Your task to perform on an android device: Open network settings Image 0: 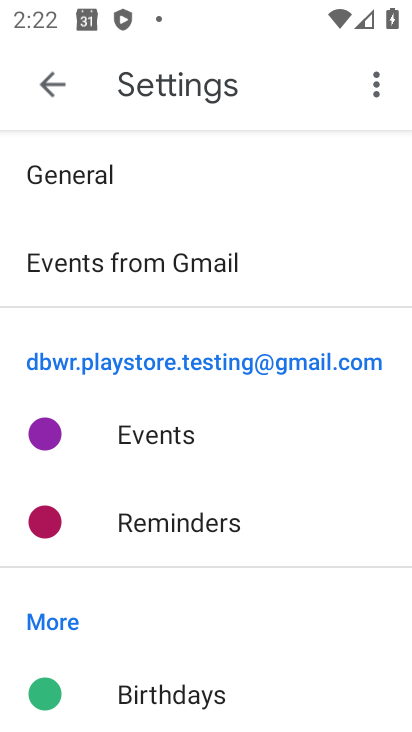
Step 0: press home button
Your task to perform on an android device: Open network settings Image 1: 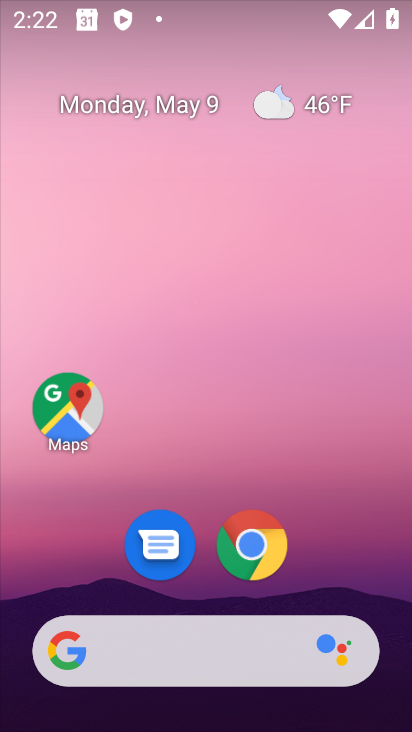
Step 1: drag from (190, 591) to (230, 196)
Your task to perform on an android device: Open network settings Image 2: 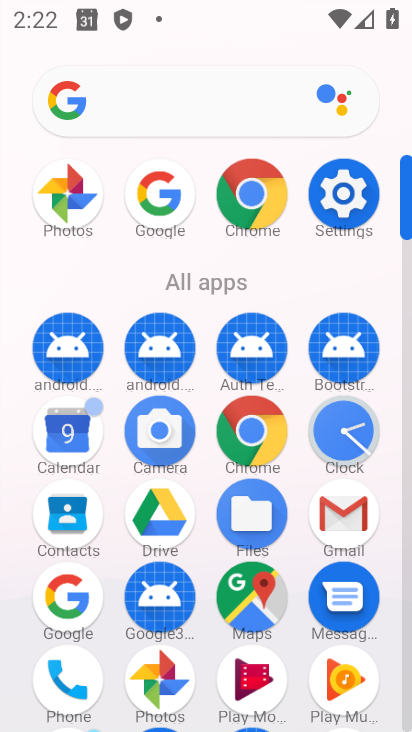
Step 2: click (306, 197)
Your task to perform on an android device: Open network settings Image 3: 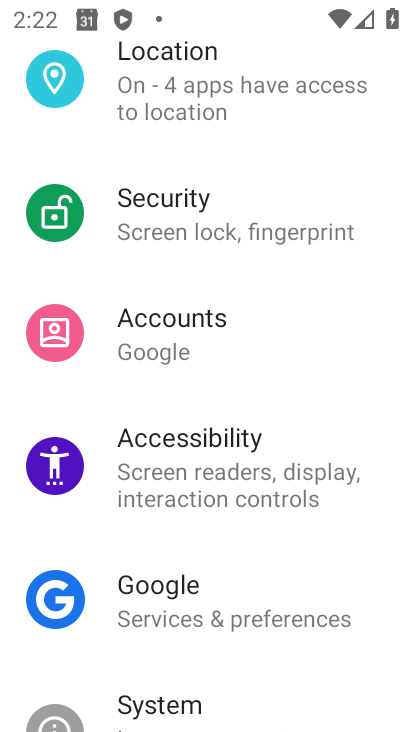
Step 3: drag from (231, 245) to (241, 628)
Your task to perform on an android device: Open network settings Image 4: 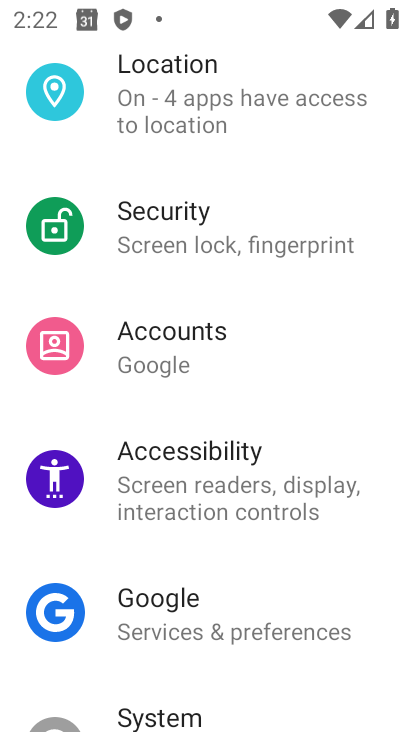
Step 4: drag from (247, 291) to (236, 554)
Your task to perform on an android device: Open network settings Image 5: 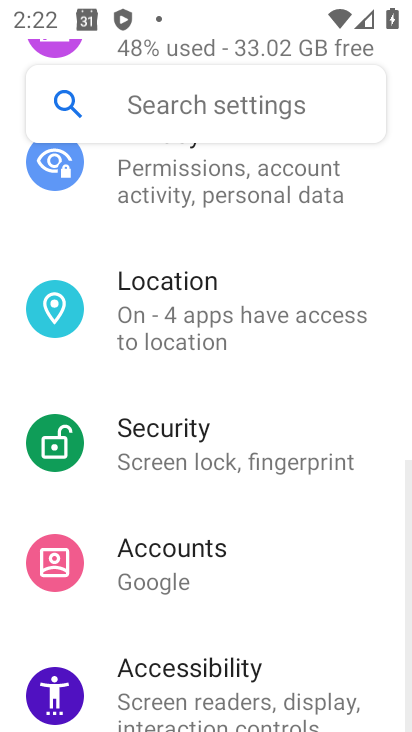
Step 5: drag from (253, 233) to (247, 529)
Your task to perform on an android device: Open network settings Image 6: 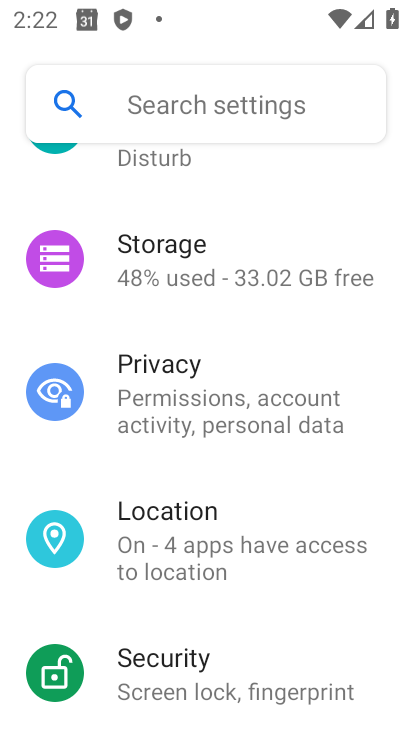
Step 6: drag from (251, 233) to (243, 496)
Your task to perform on an android device: Open network settings Image 7: 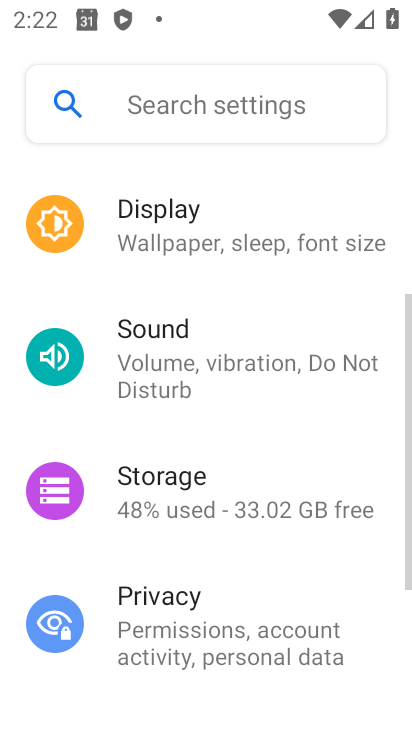
Step 7: drag from (237, 280) to (229, 543)
Your task to perform on an android device: Open network settings Image 8: 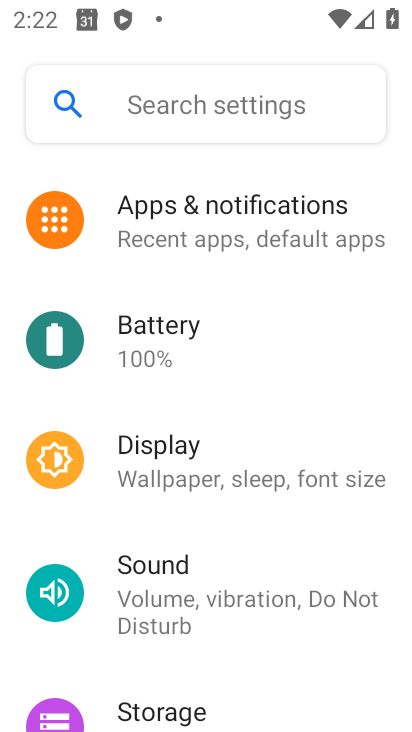
Step 8: drag from (210, 250) to (187, 615)
Your task to perform on an android device: Open network settings Image 9: 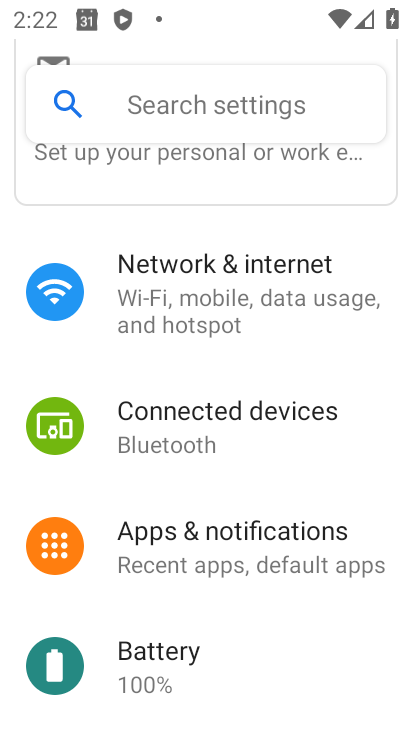
Step 9: click (205, 306)
Your task to perform on an android device: Open network settings Image 10: 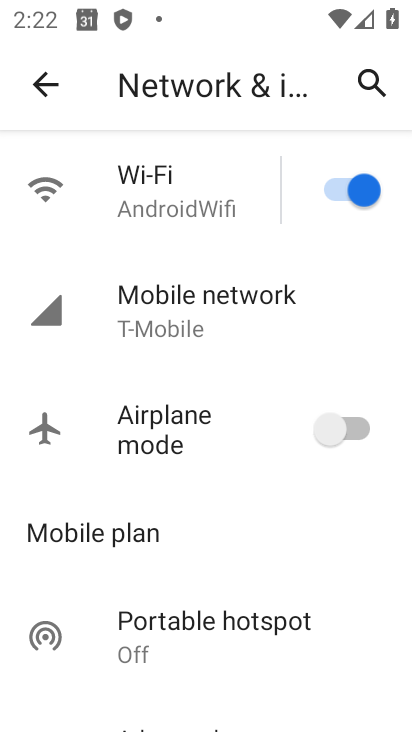
Step 10: drag from (216, 608) to (242, 427)
Your task to perform on an android device: Open network settings Image 11: 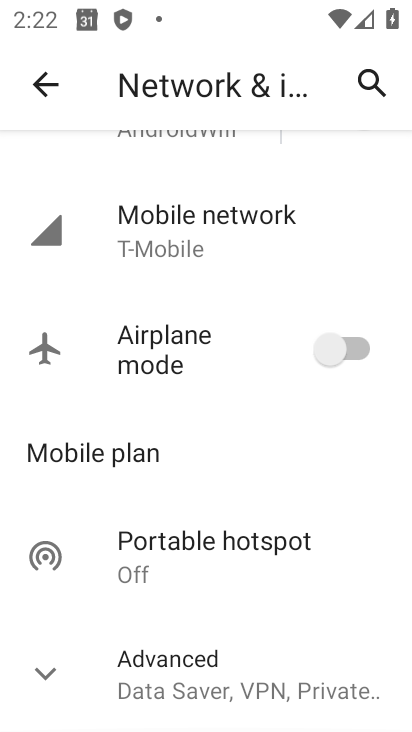
Step 11: click (246, 261)
Your task to perform on an android device: Open network settings Image 12: 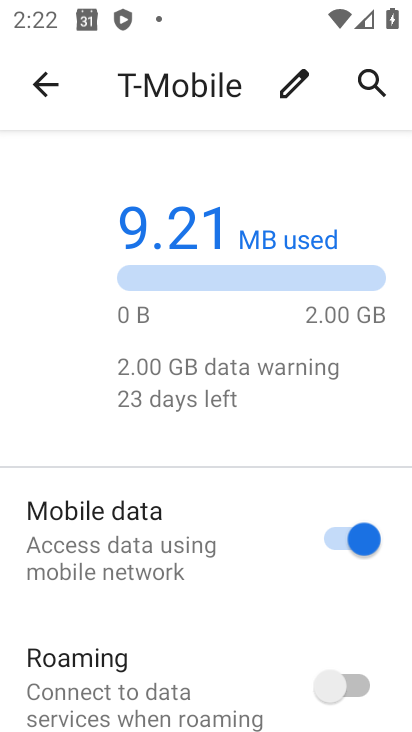
Step 12: task complete